Your task to perform on an android device: make emails show in primary in the gmail app Image 0: 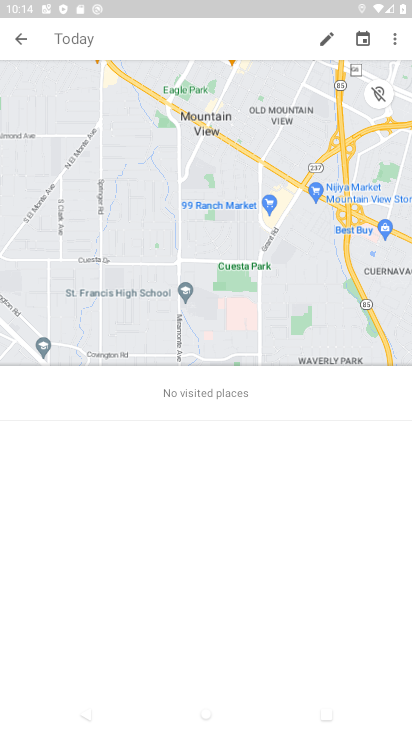
Step 0: press home button
Your task to perform on an android device: make emails show in primary in the gmail app Image 1: 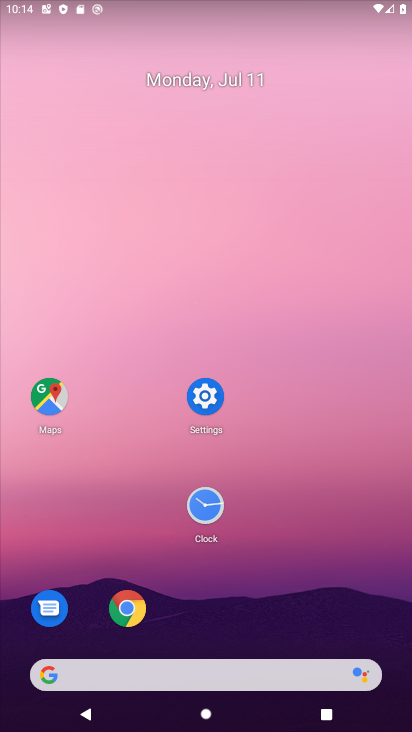
Step 1: drag from (401, 694) to (362, 112)
Your task to perform on an android device: make emails show in primary in the gmail app Image 2: 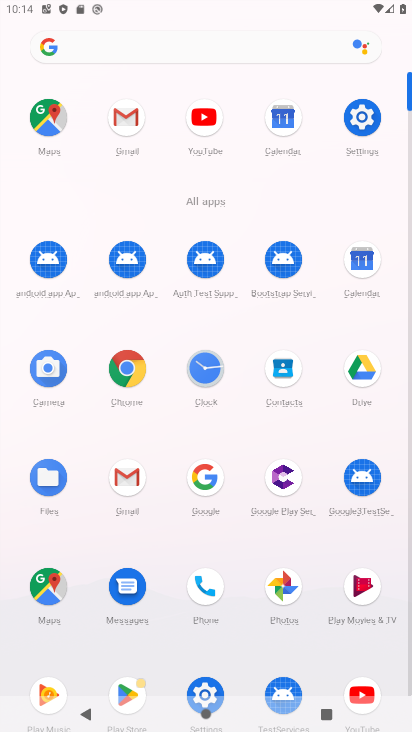
Step 2: click (132, 475)
Your task to perform on an android device: make emails show in primary in the gmail app Image 3: 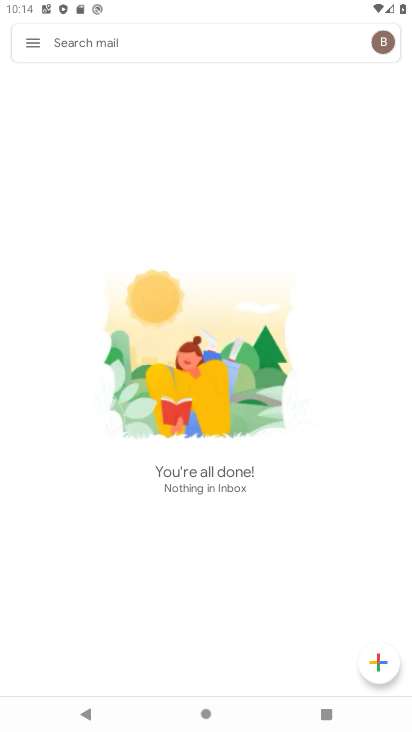
Step 3: click (29, 38)
Your task to perform on an android device: make emails show in primary in the gmail app Image 4: 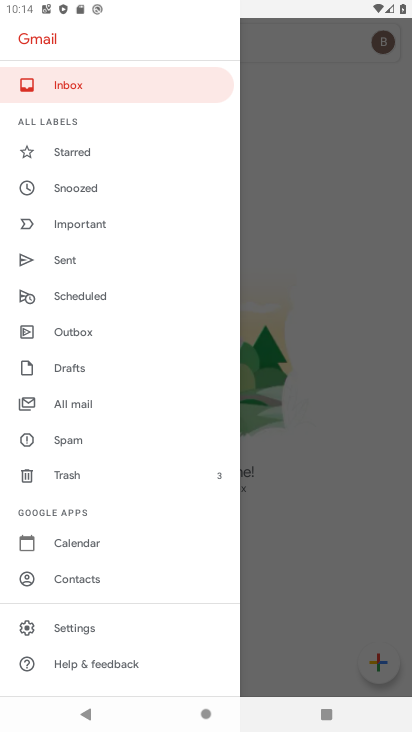
Step 4: click (64, 629)
Your task to perform on an android device: make emails show in primary in the gmail app Image 5: 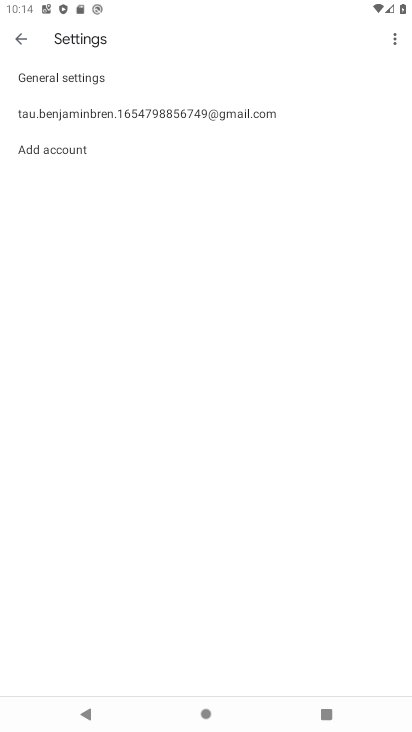
Step 5: click (70, 114)
Your task to perform on an android device: make emails show in primary in the gmail app Image 6: 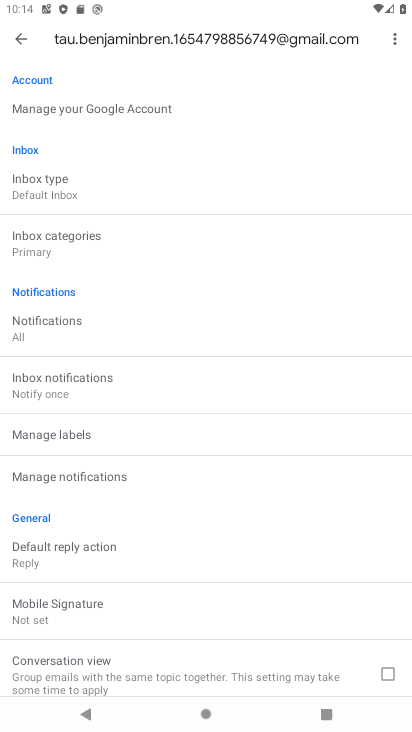
Step 6: click (35, 188)
Your task to perform on an android device: make emails show in primary in the gmail app Image 7: 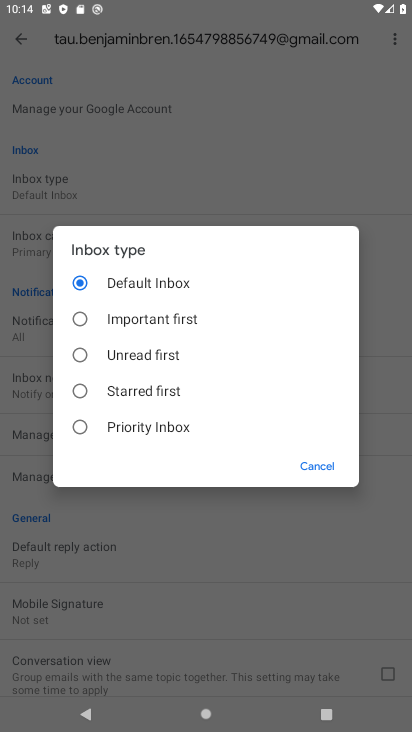
Step 7: click (23, 254)
Your task to perform on an android device: make emails show in primary in the gmail app Image 8: 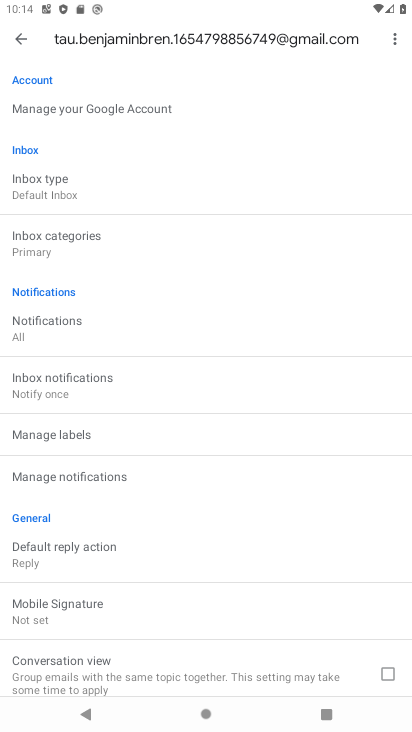
Step 8: click (34, 254)
Your task to perform on an android device: make emails show in primary in the gmail app Image 9: 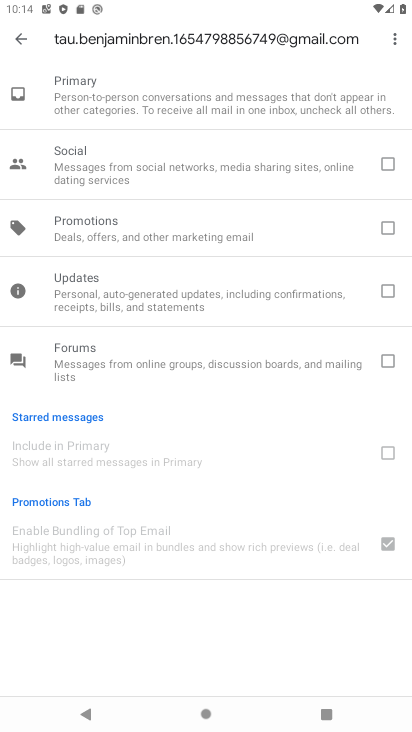
Step 9: task complete